Your task to perform on an android device: toggle wifi Image 0: 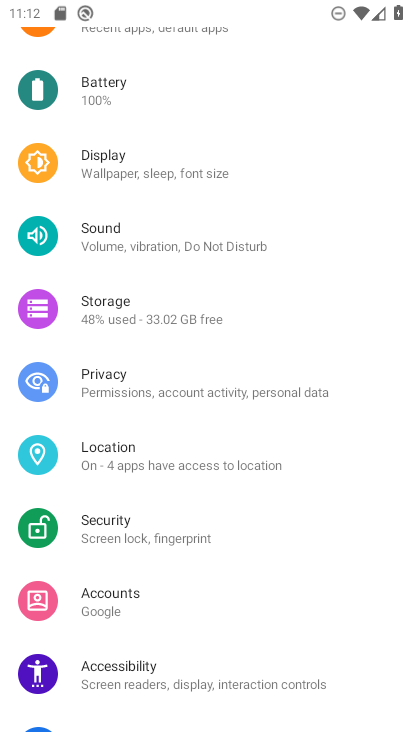
Step 0: drag from (137, 172) to (217, 540)
Your task to perform on an android device: toggle wifi Image 1: 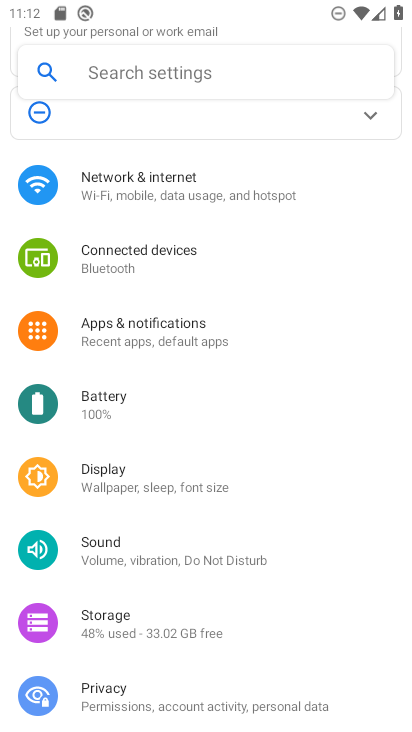
Step 1: drag from (157, 247) to (146, 547)
Your task to perform on an android device: toggle wifi Image 2: 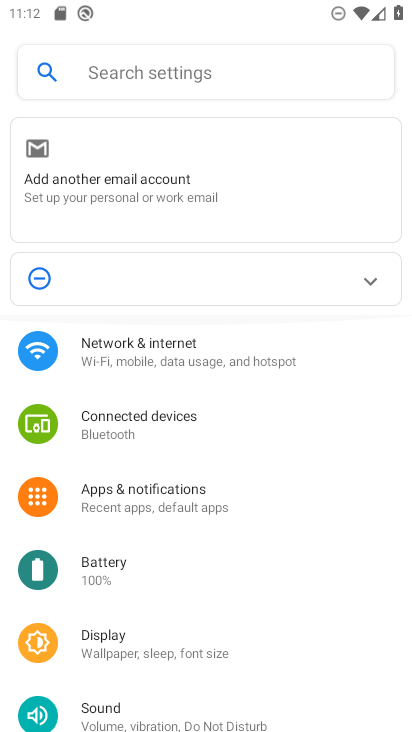
Step 2: drag from (126, 188) to (174, 594)
Your task to perform on an android device: toggle wifi Image 3: 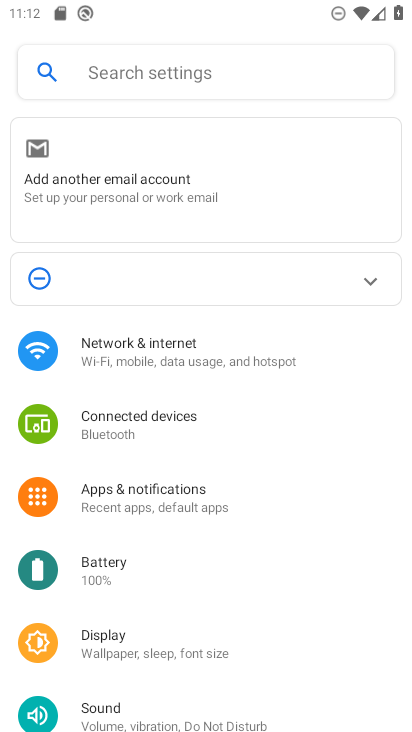
Step 3: click (155, 342)
Your task to perform on an android device: toggle wifi Image 4: 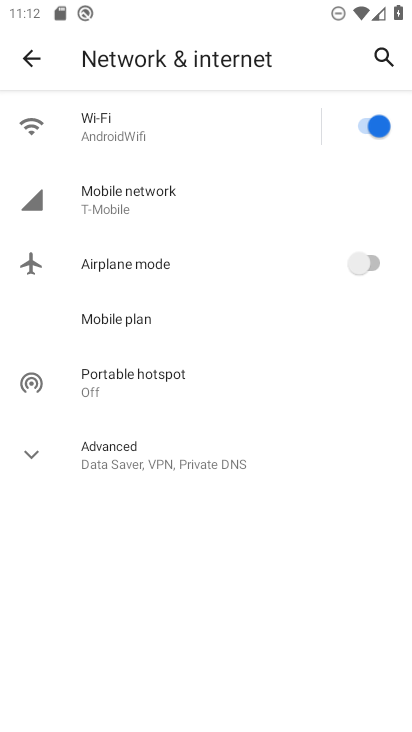
Step 4: click (378, 116)
Your task to perform on an android device: toggle wifi Image 5: 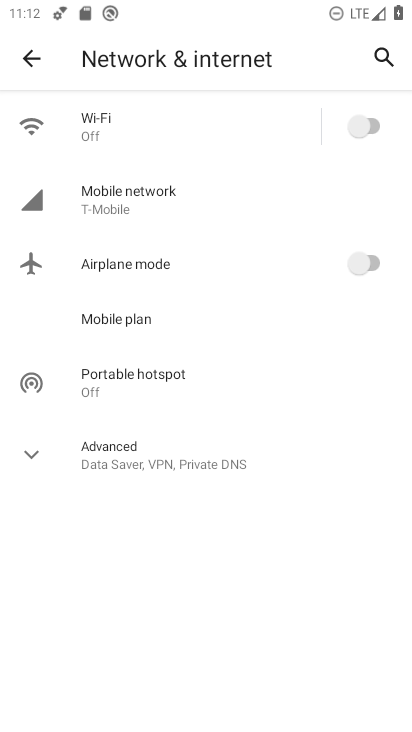
Step 5: task complete